Your task to perform on an android device: Open the map Image 0: 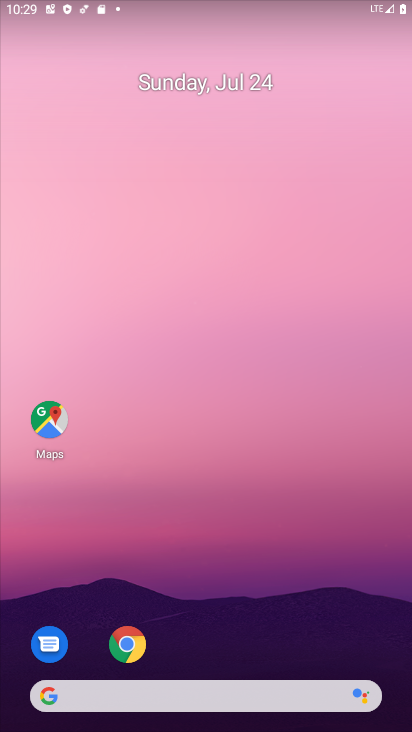
Step 0: click (40, 417)
Your task to perform on an android device: Open the map Image 1: 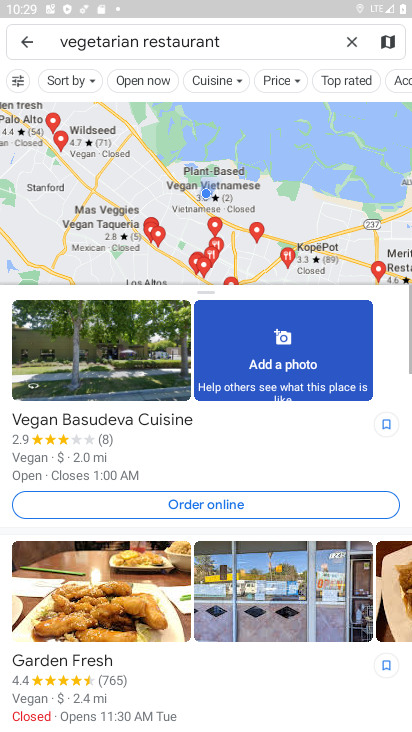
Step 1: click (22, 47)
Your task to perform on an android device: Open the map Image 2: 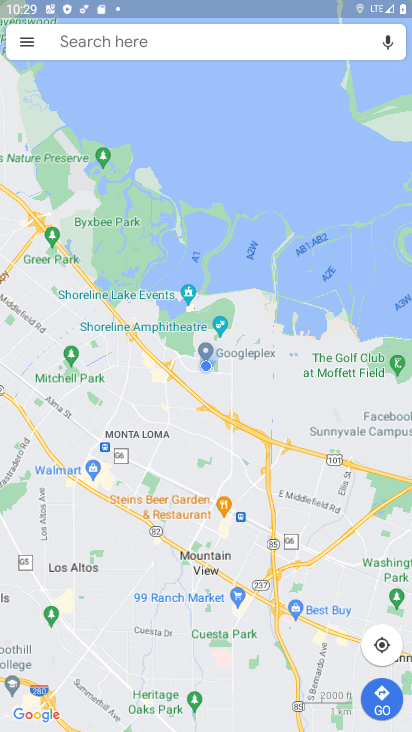
Step 2: task complete